Your task to perform on an android device: Turn on the flashlight Image 0: 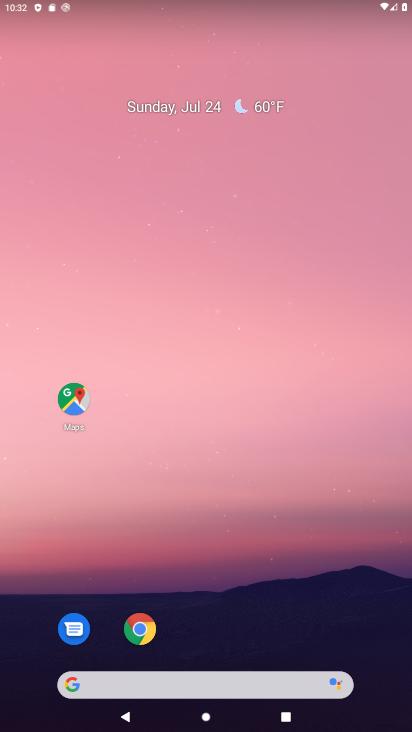
Step 0: drag from (265, 699) to (241, 9)
Your task to perform on an android device: Turn on the flashlight Image 1: 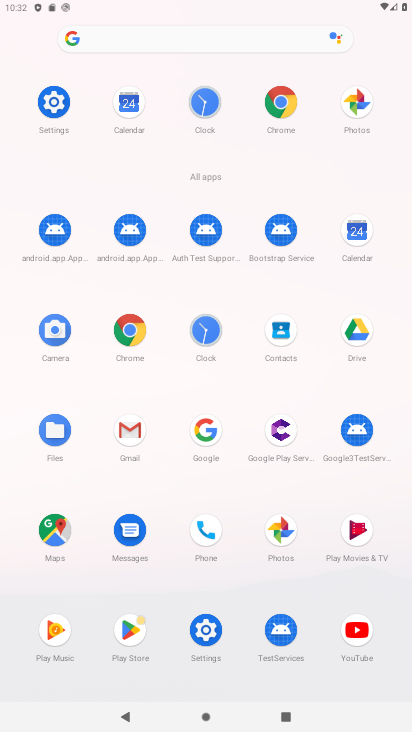
Step 1: task complete